Your task to perform on an android device: Open settings on Google Maps Image 0: 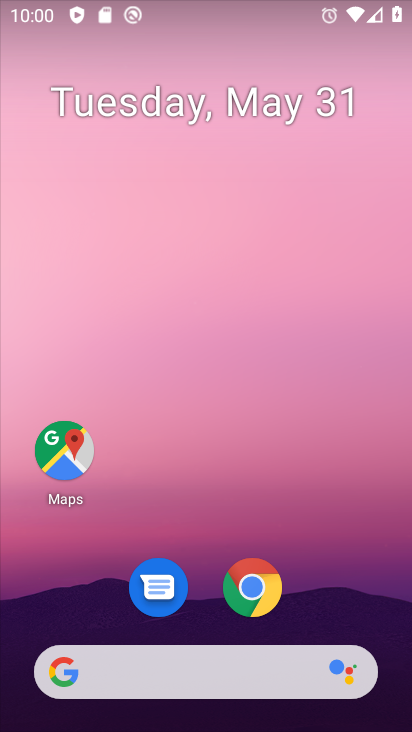
Step 0: drag from (373, 616) to (379, 323)
Your task to perform on an android device: Open settings on Google Maps Image 1: 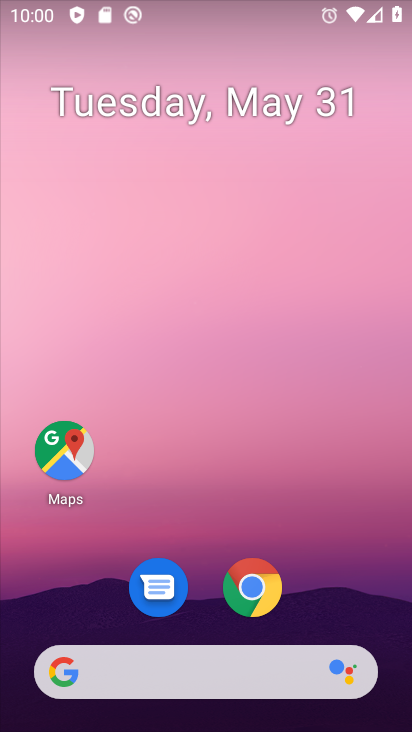
Step 1: drag from (367, 607) to (377, 240)
Your task to perform on an android device: Open settings on Google Maps Image 2: 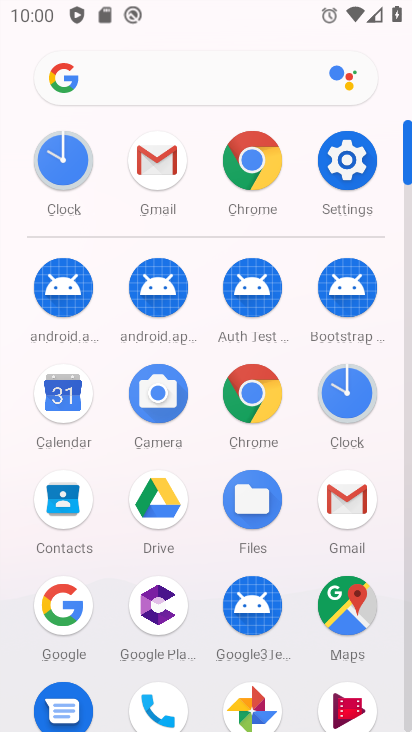
Step 2: click (357, 606)
Your task to perform on an android device: Open settings on Google Maps Image 3: 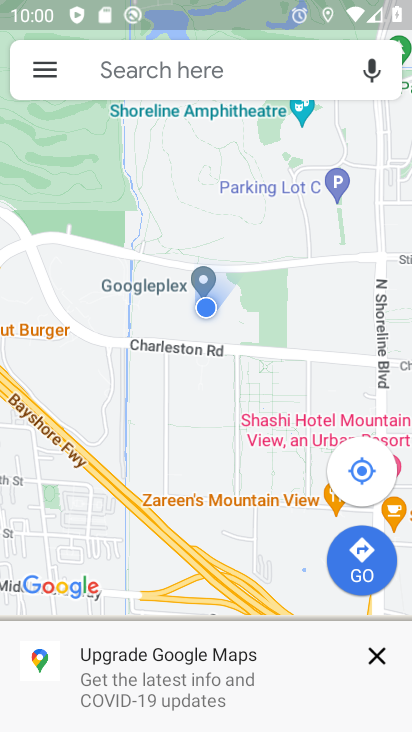
Step 3: click (47, 76)
Your task to perform on an android device: Open settings on Google Maps Image 4: 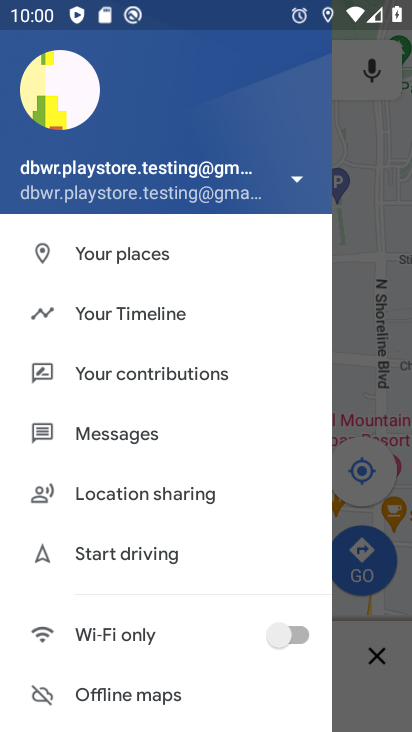
Step 4: drag from (268, 515) to (279, 394)
Your task to perform on an android device: Open settings on Google Maps Image 5: 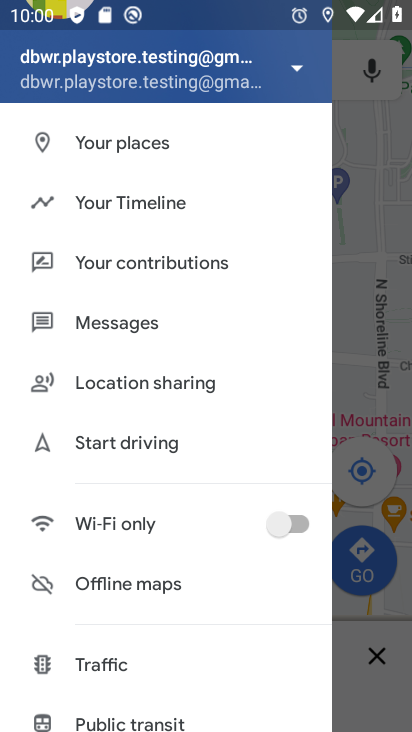
Step 5: drag from (246, 528) to (252, 392)
Your task to perform on an android device: Open settings on Google Maps Image 6: 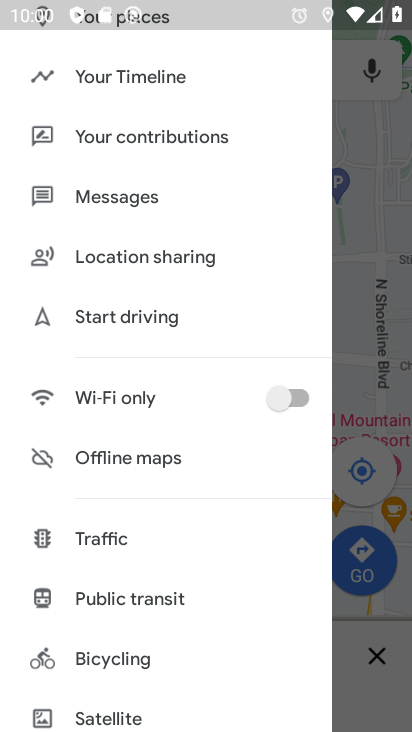
Step 6: drag from (241, 550) to (248, 381)
Your task to perform on an android device: Open settings on Google Maps Image 7: 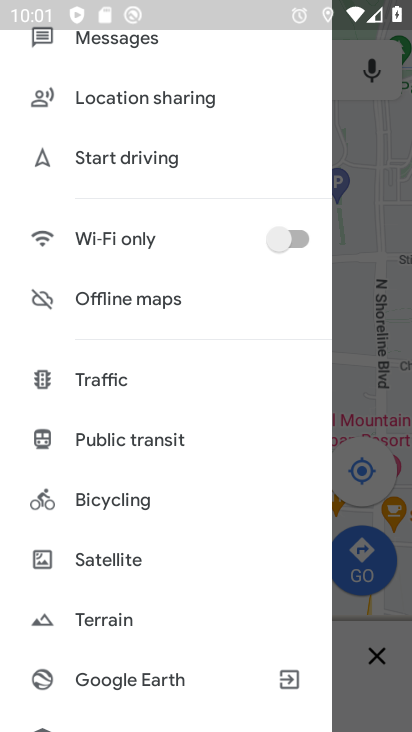
Step 7: drag from (233, 556) to (231, 416)
Your task to perform on an android device: Open settings on Google Maps Image 8: 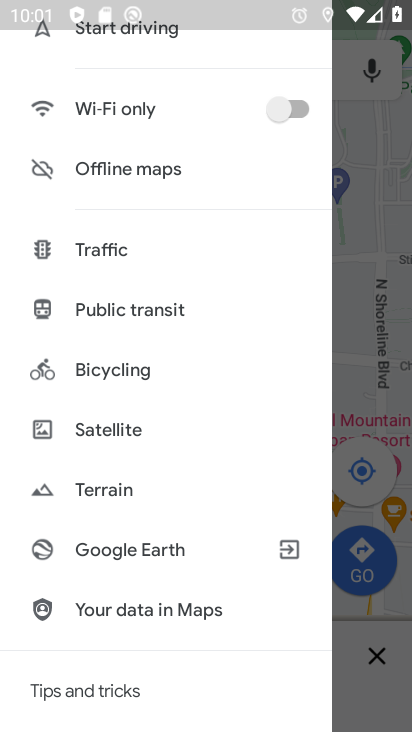
Step 8: drag from (224, 570) to (231, 424)
Your task to perform on an android device: Open settings on Google Maps Image 9: 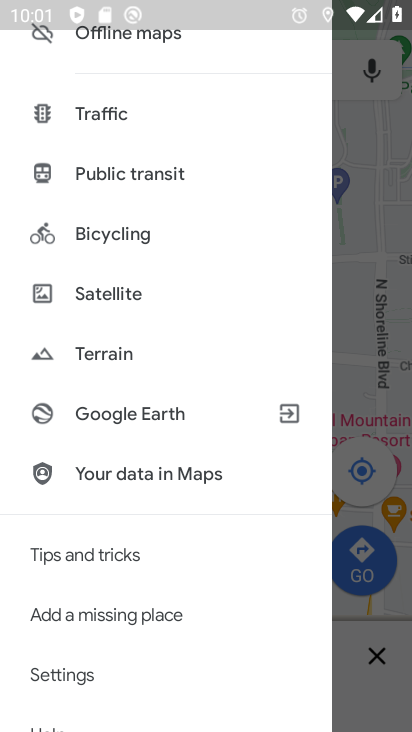
Step 9: drag from (239, 581) to (253, 370)
Your task to perform on an android device: Open settings on Google Maps Image 10: 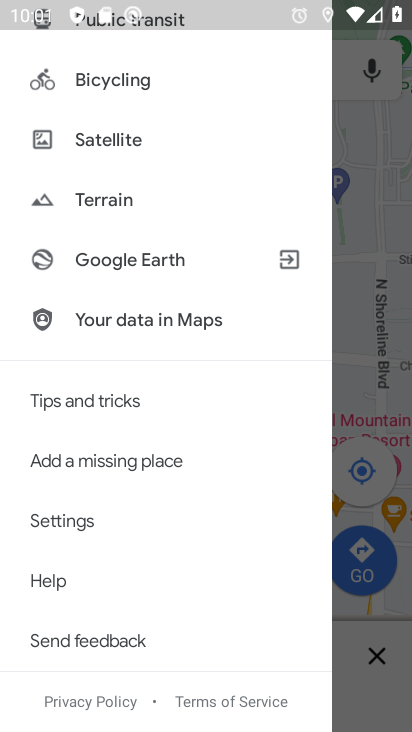
Step 10: click (119, 527)
Your task to perform on an android device: Open settings on Google Maps Image 11: 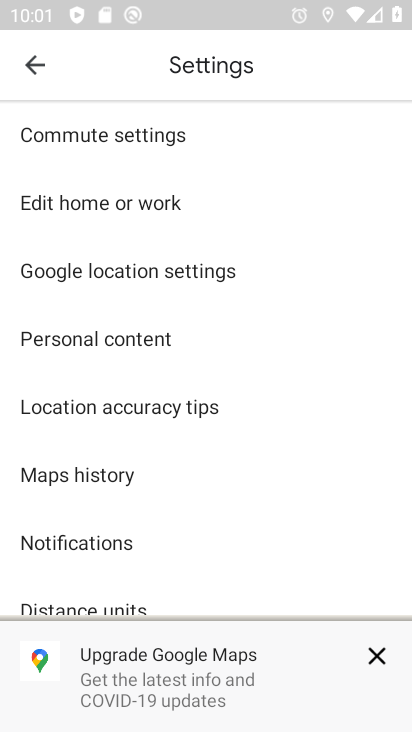
Step 11: task complete